Your task to perform on an android device: Add logitech g pro to the cart on ebay Image 0: 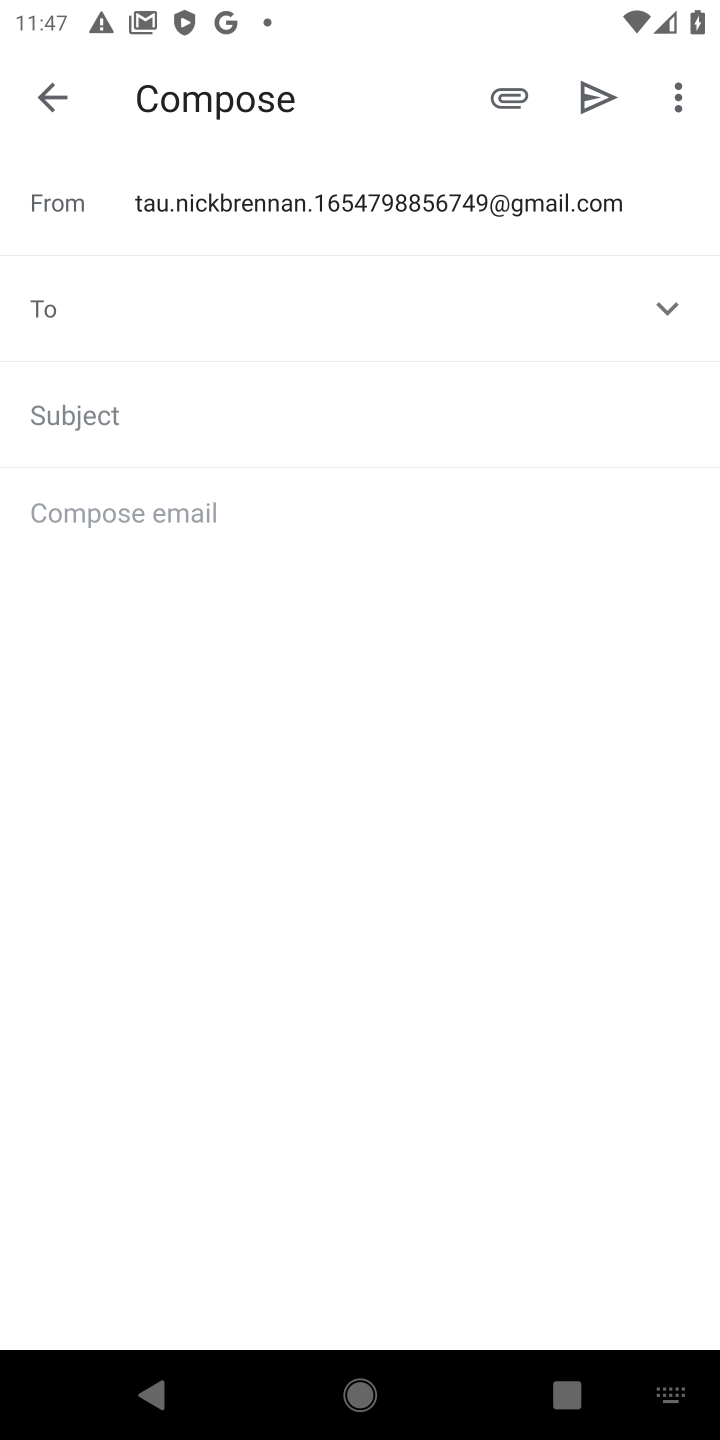
Step 0: press home button
Your task to perform on an android device: Add logitech g pro to the cart on ebay Image 1: 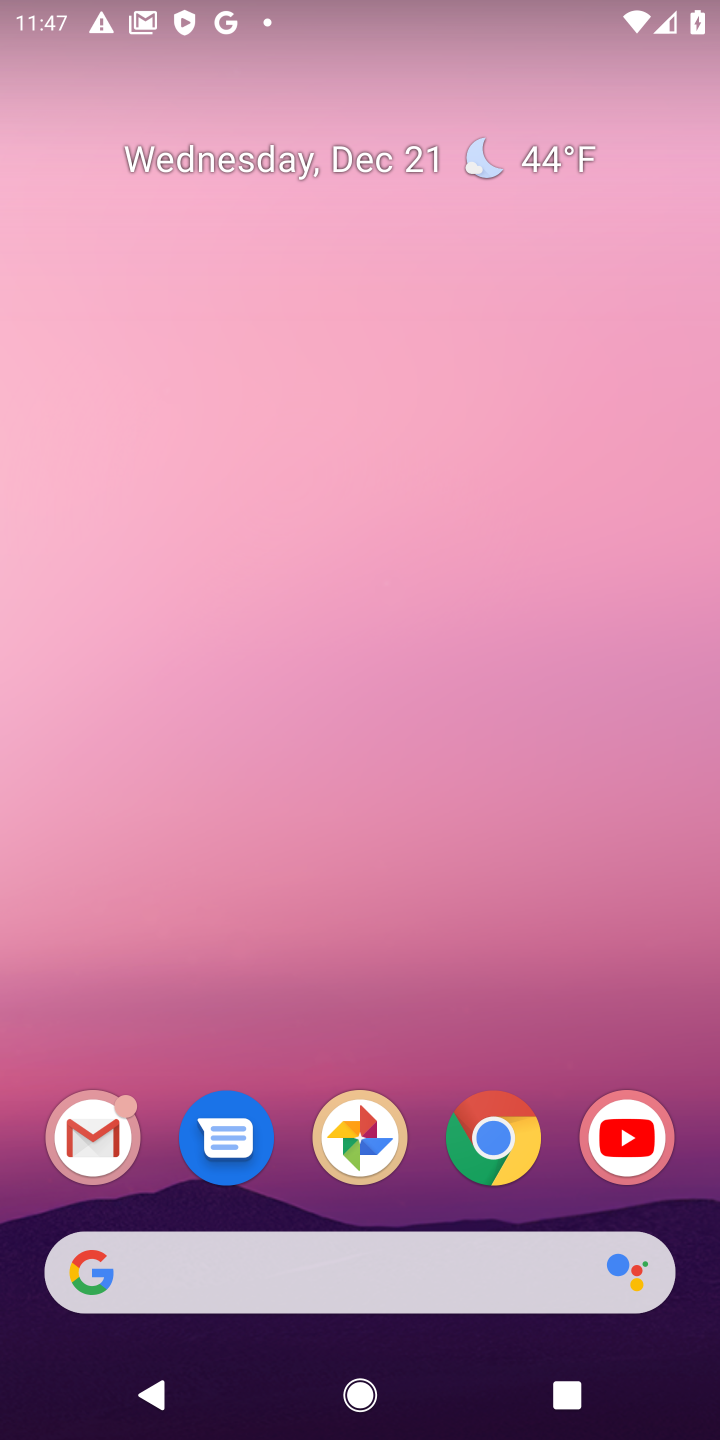
Step 1: click (486, 1148)
Your task to perform on an android device: Add logitech g pro to the cart on ebay Image 2: 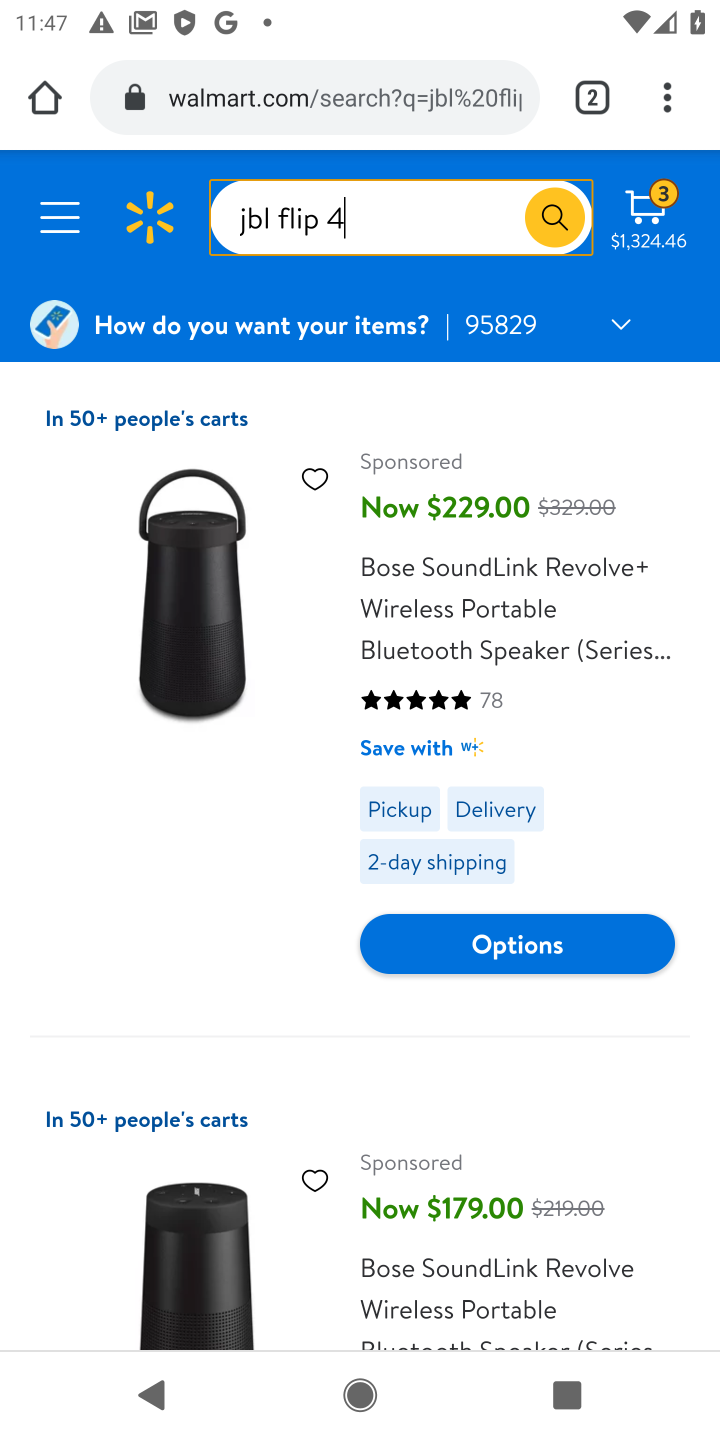
Step 2: click (241, 107)
Your task to perform on an android device: Add logitech g pro to the cart on ebay Image 3: 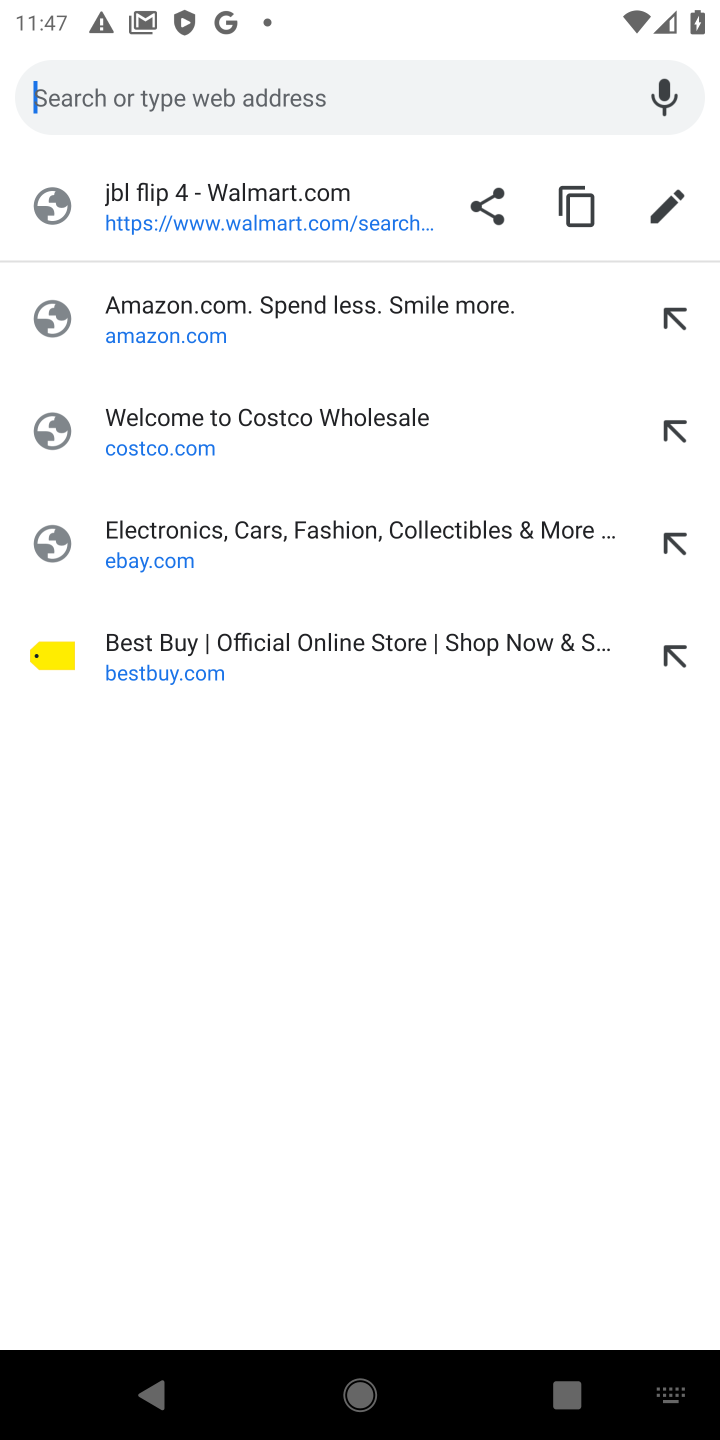
Step 3: click (119, 567)
Your task to perform on an android device: Add logitech g pro to the cart on ebay Image 4: 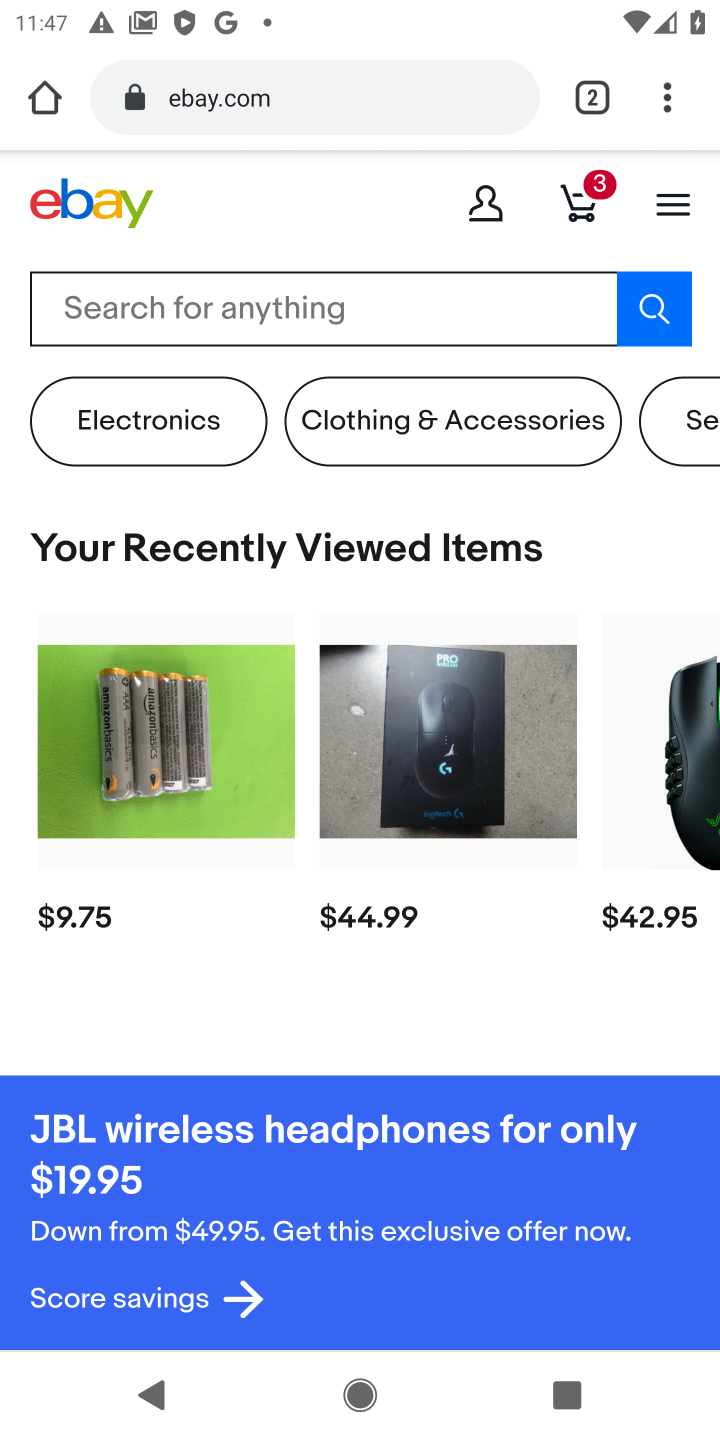
Step 4: click (96, 309)
Your task to perform on an android device: Add logitech g pro to the cart on ebay Image 5: 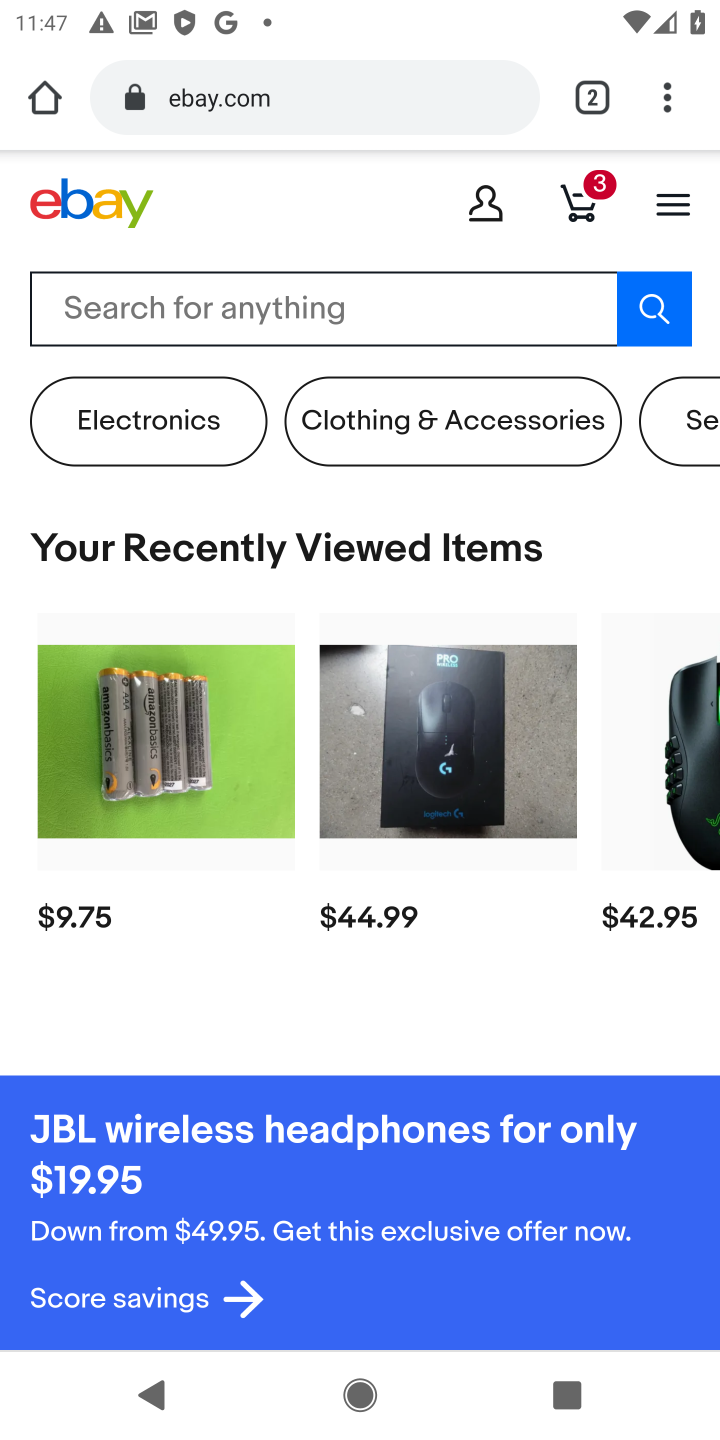
Step 5: click (96, 309)
Your task to perform on an android device: Add logitech g pro to the cart on ebay Image 6: 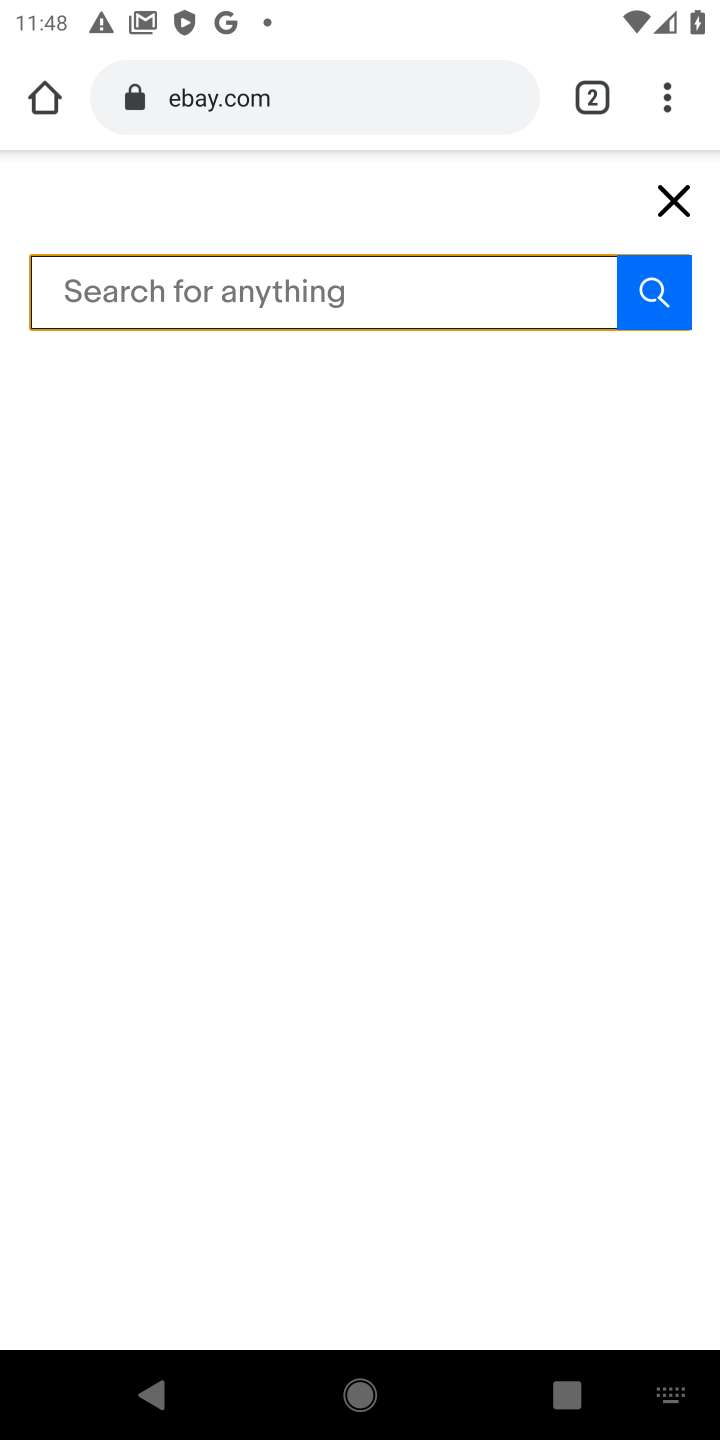
Step 6: type "logitech g pro"
Your task to perform on an android device: Add logitech g pro to the cart on ebay Image 7: 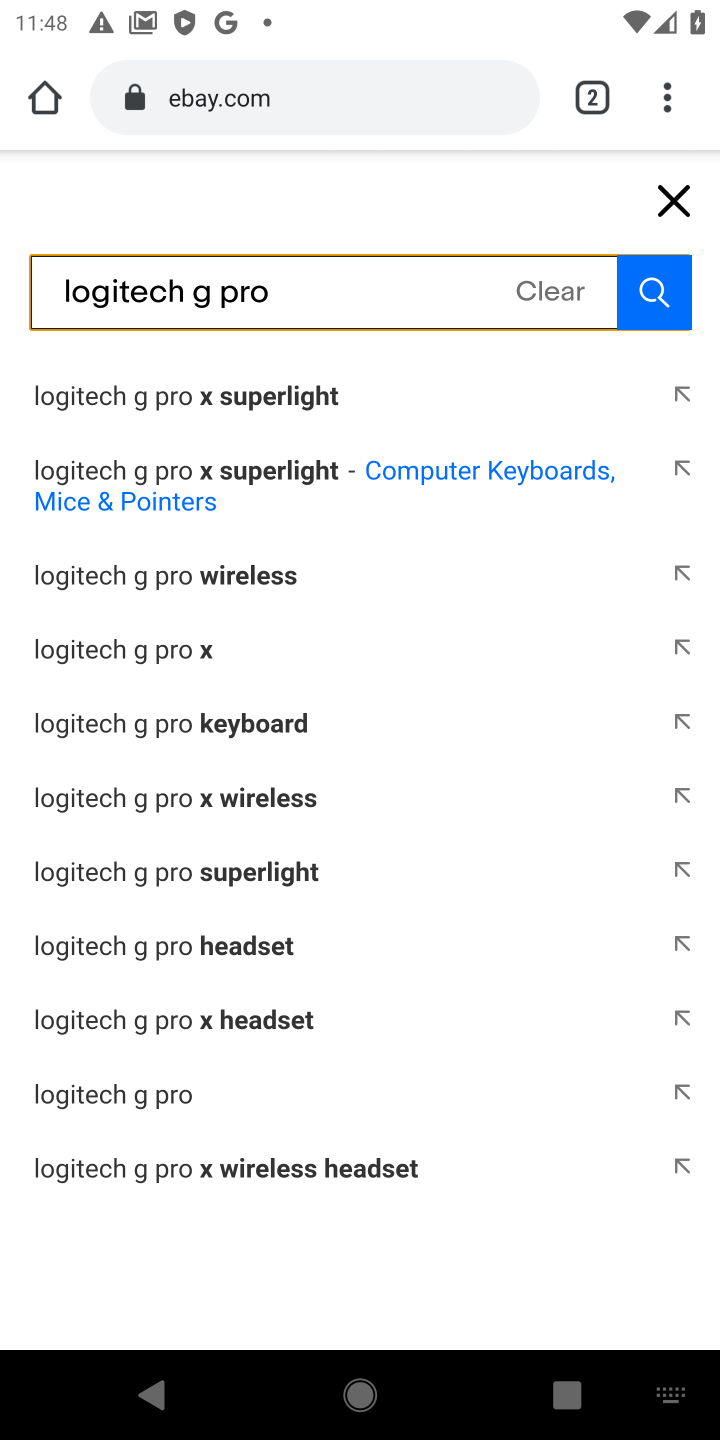
Step 7: click (111, 1102)
Your task to perform on an android device: Add logitech g pro to the cart on ebay Image 8: 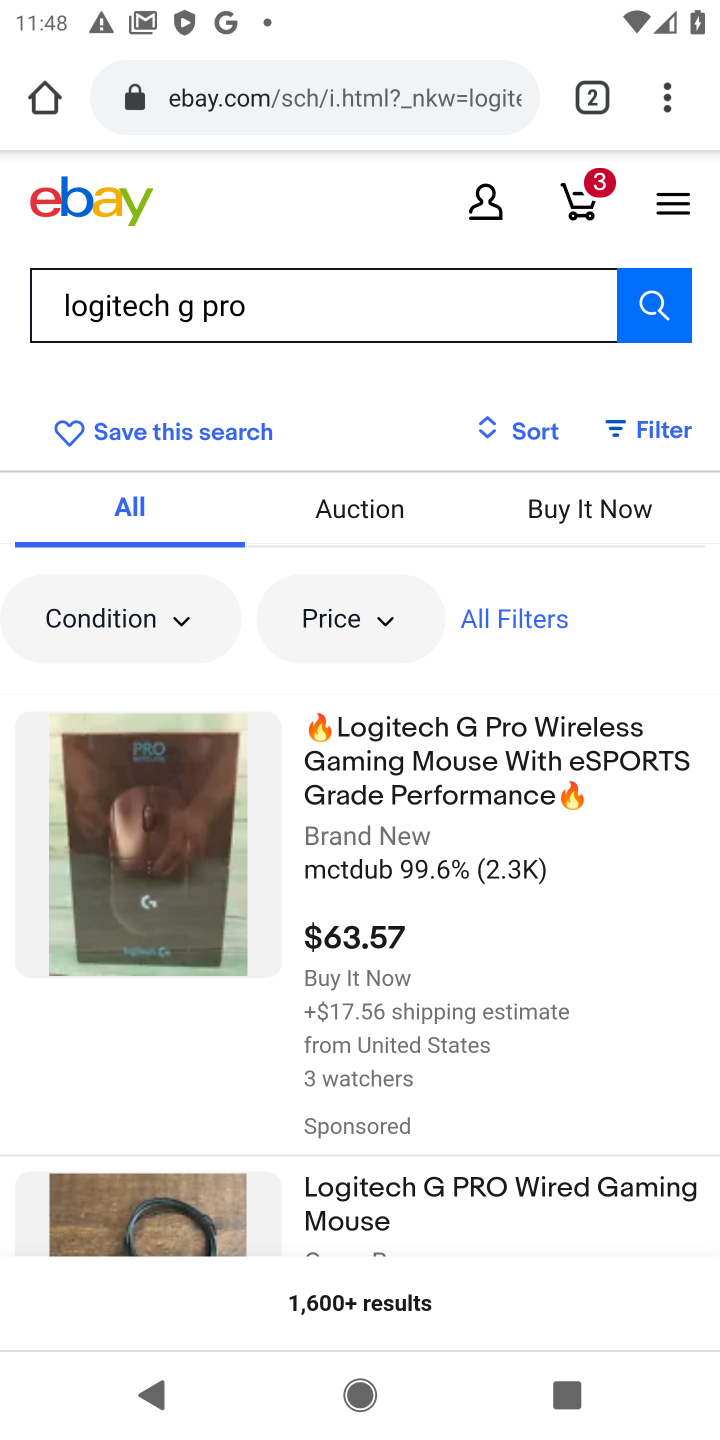
Step 8: click (422, 784)
Your task to perform on an android device: Add logitech g pro to the cart on ebay Image 9: 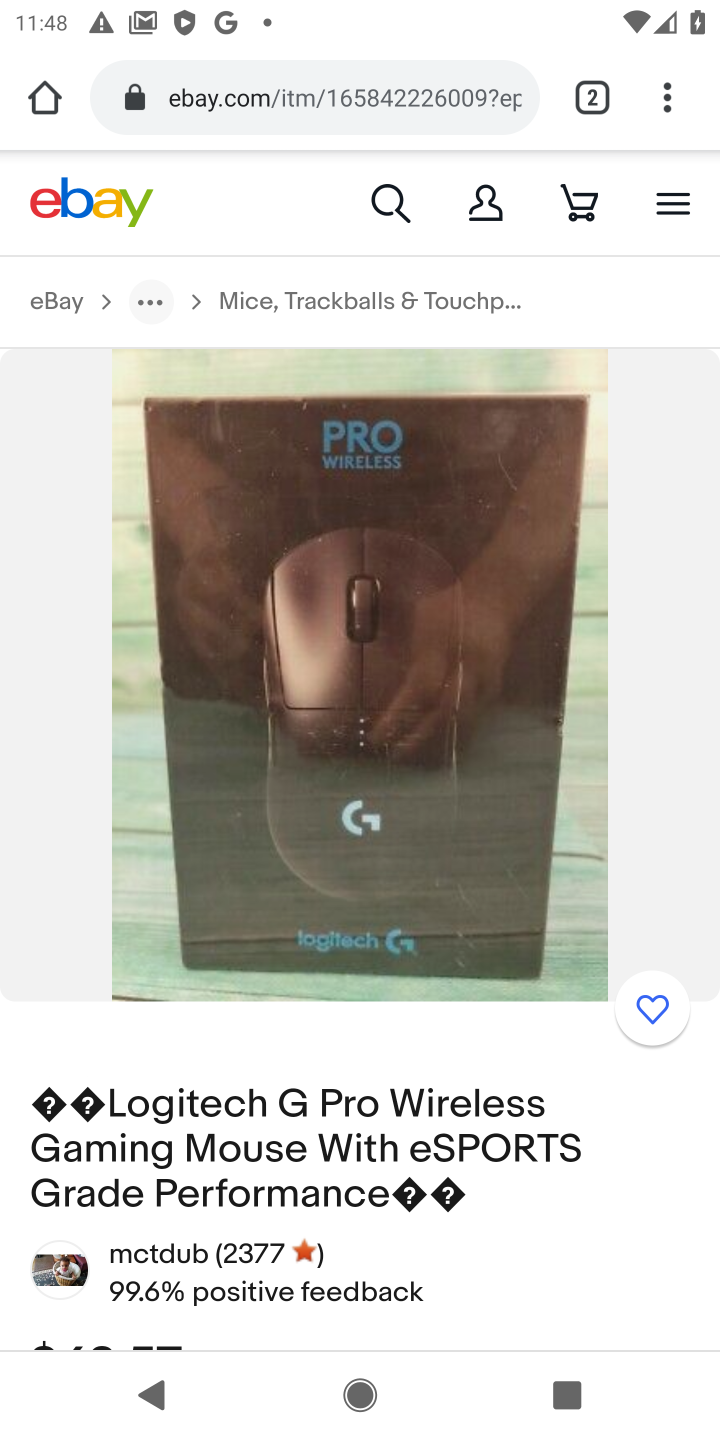
Step 9: drag from (343, 951) to (349, 549)
Your task to perform on an android device: Add logitech g pro to the cart on ebay Image 10: 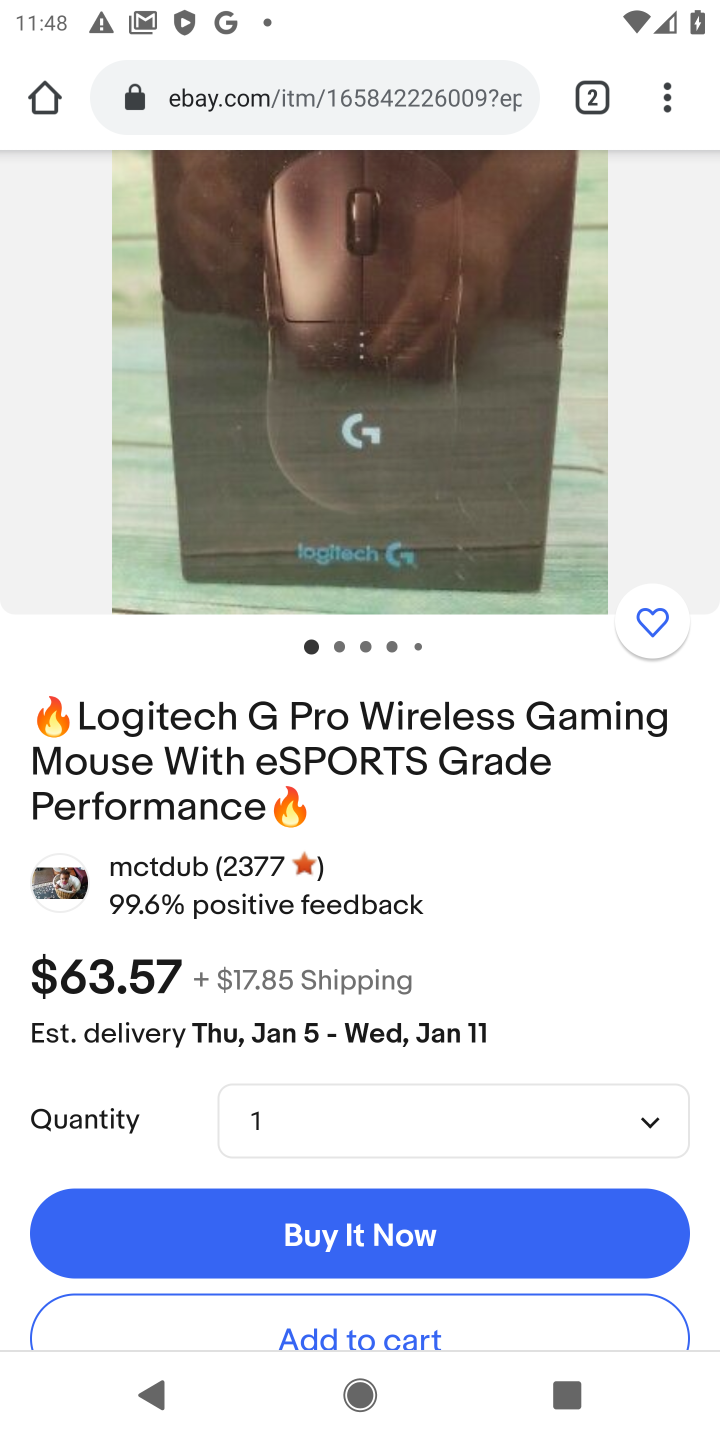
Step 10: click (352, 1332)
Your task to perform on an android device: Add logitech g pro to the cart on ebay Image 11: 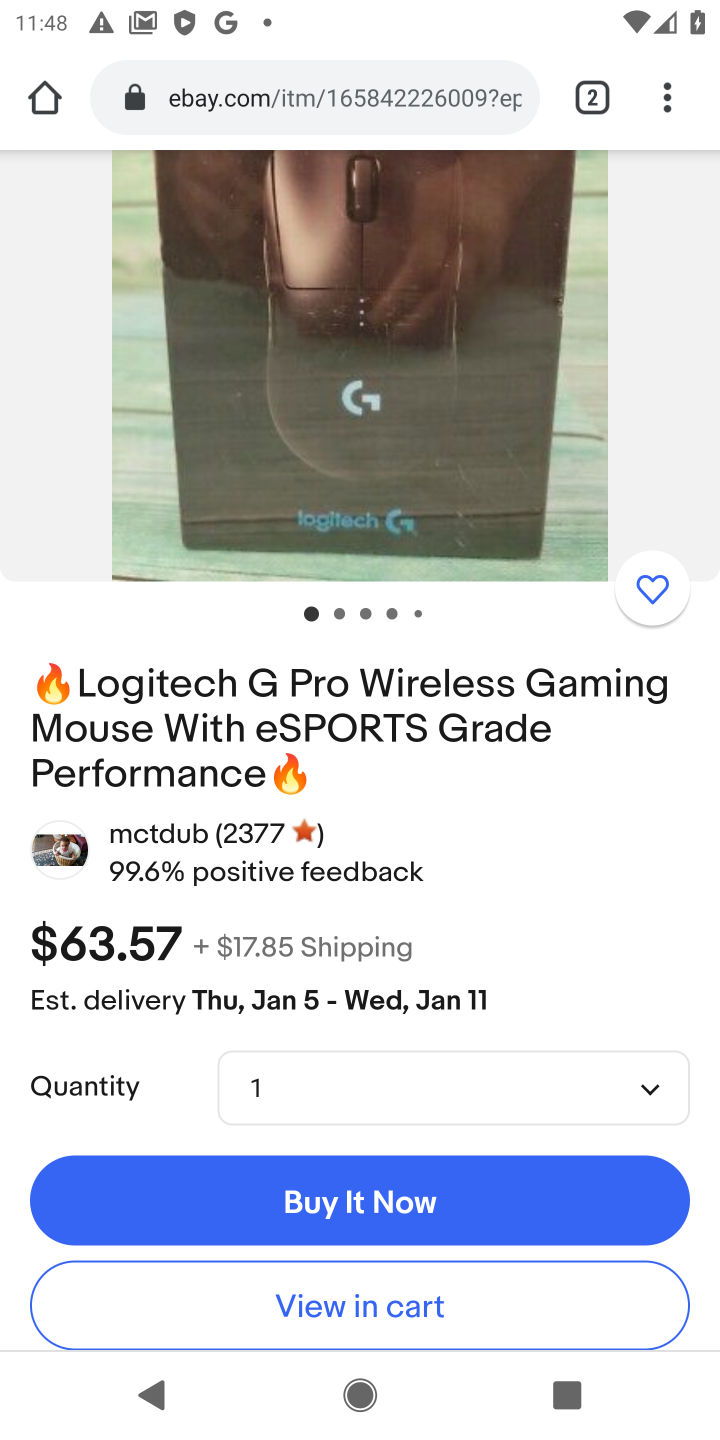
Step 11: task complete